Your task to perform on an android device: find which apps use the phone's location Image 0: 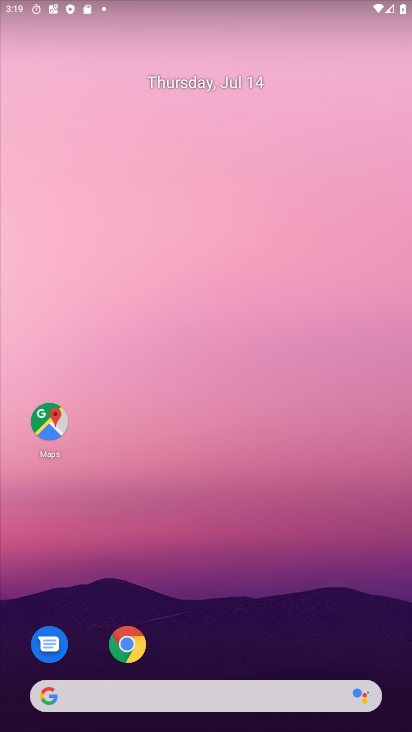
Step 0: click (295, 204)
Your task to perform on an android device: find which apps use the phone's location Image 1: 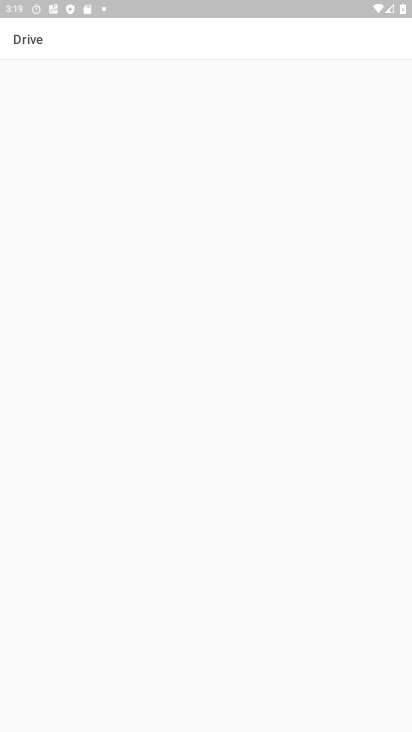
Step 1: press home button
Your task to perform on an android device: find which apps use the phone's location Image 2: 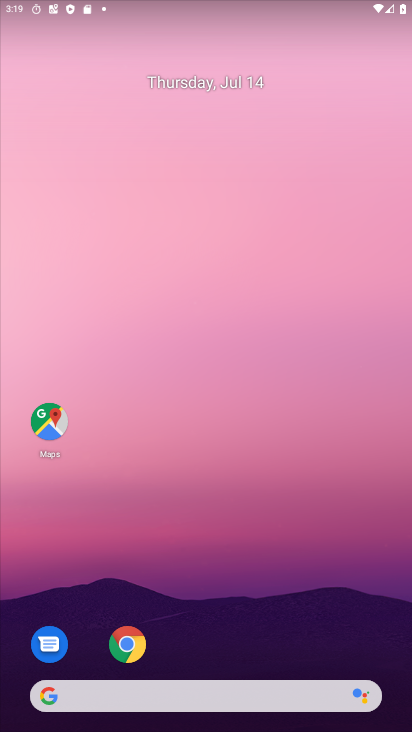
Step 2: drag from (241, 234) to (274, 181)
Your task to perform on an android device: find which apps use the phone's location Image 3: 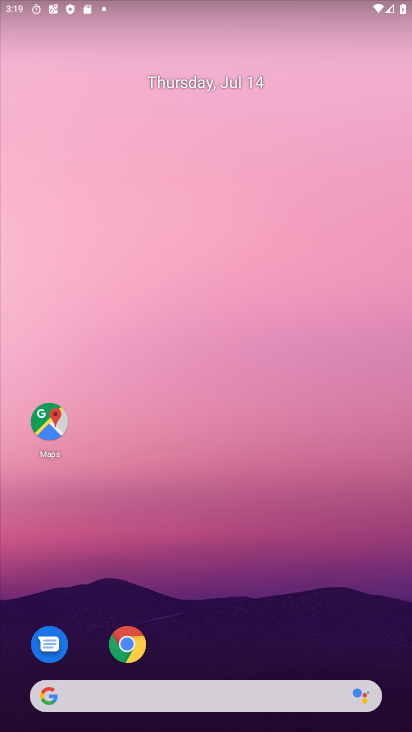
Step 3: drag from (25, 705) to (377, 44)
Your task to perform on an android device: find which apps use the phone's location Image 4: 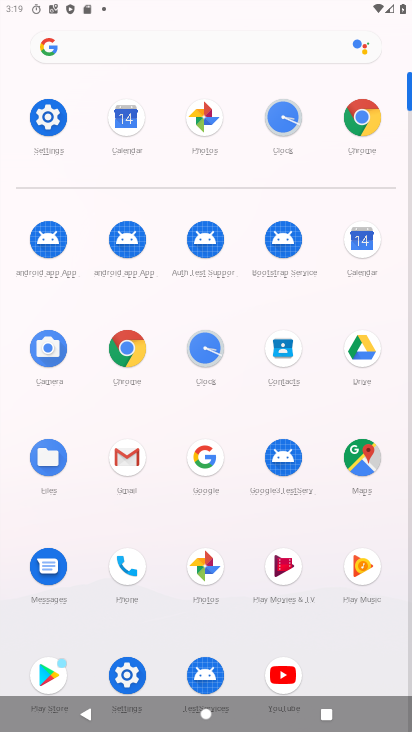
Step 4: click (121, 675)
Your task to perform on an android device: find which apps use the phone's location Image 5: 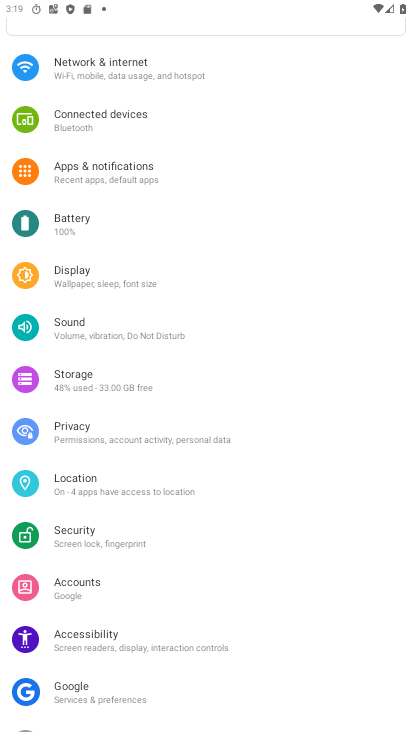
Step 5: click (99, 479)
Your task to perform on an android device: find which apps use the phone's location Image 6: 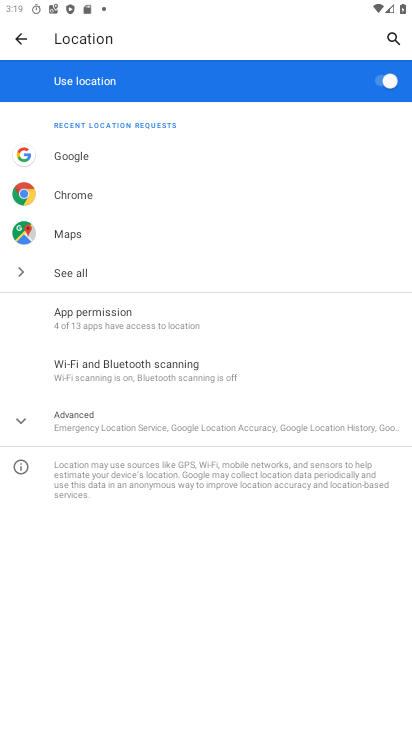
Step 6: click (112, 320)
Your task to perform on an android device: find which apps use the phone's location Image 7: 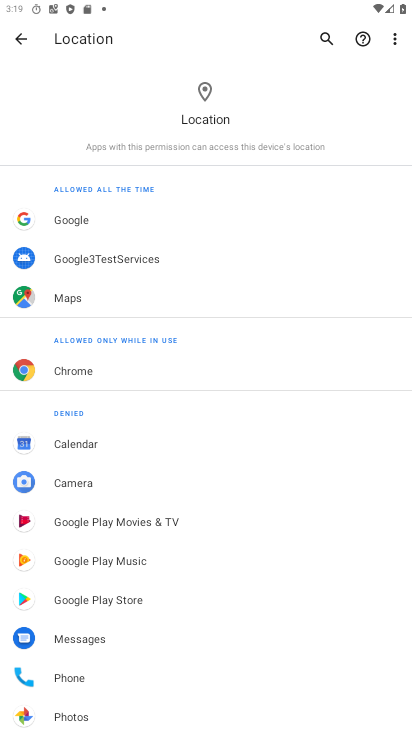
Step 7: task complete